Your task to perform on an android device: Show me popular videos on Youtube Image 0: 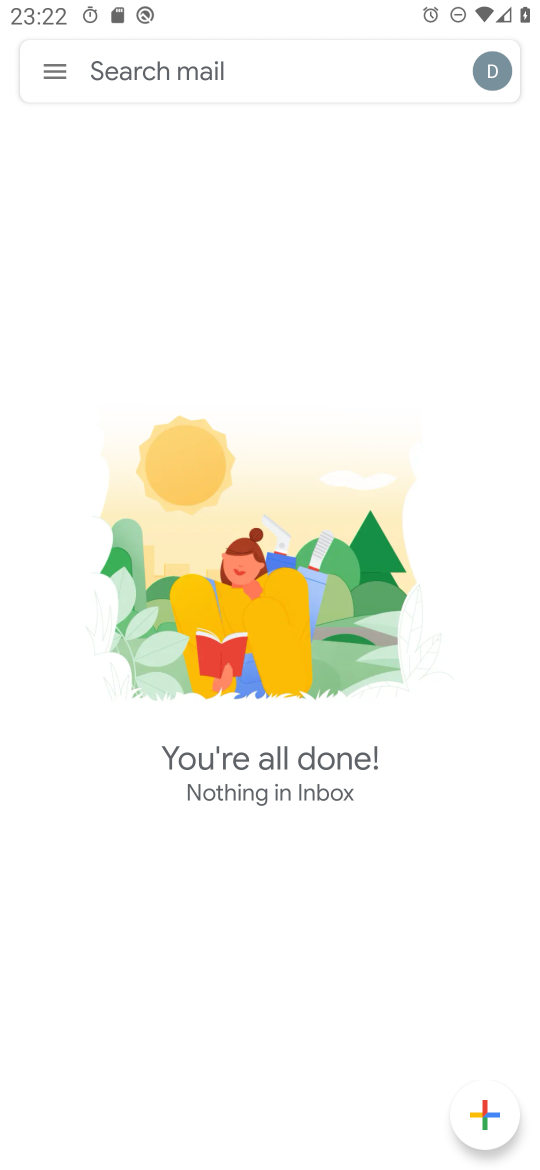
Step 0: press back button
Your task to perform on an android device: Show me popular videos on Youtube Image 1: 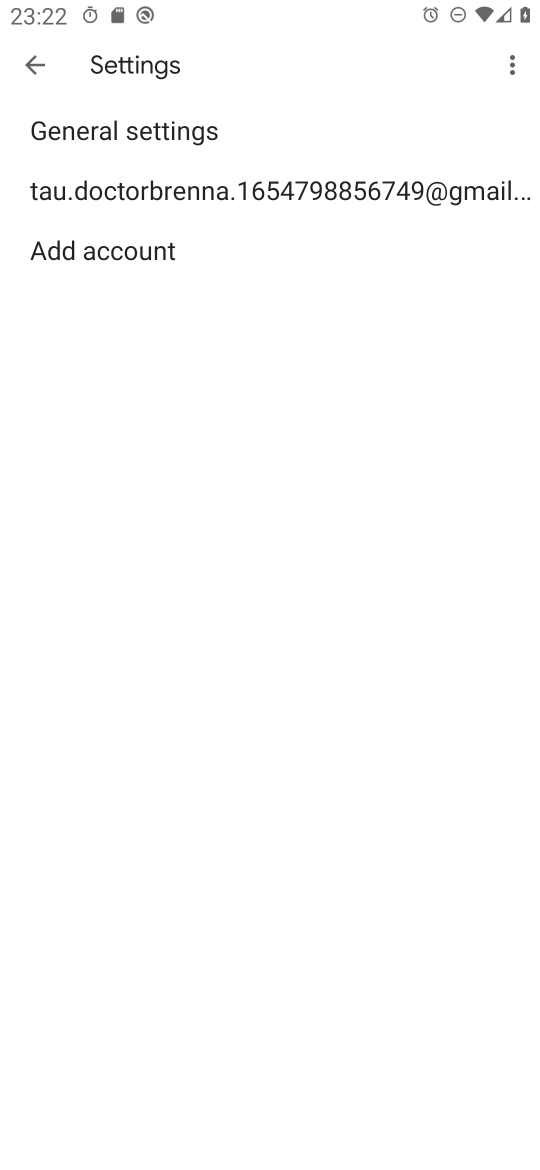
Step 1: press home button
Your task to perform on an android device: Show me popular videos on Youtube Image 2: 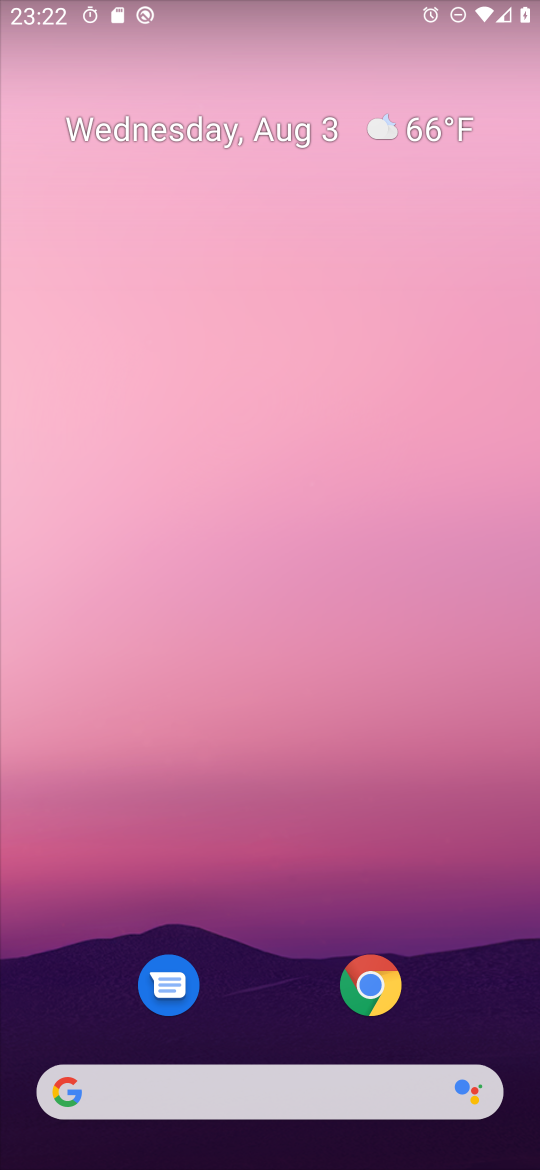
Step 2: drag from (247, 1024) to (287, 458)
Your task to perform on an android device: Show me popular videos on Youtube Image 3: 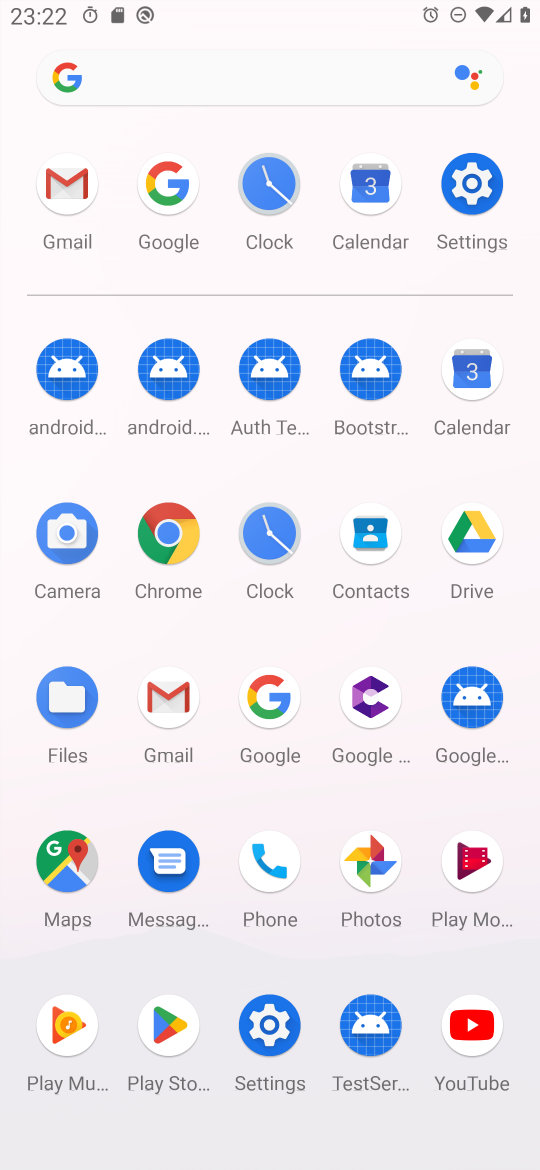
Step 3: click (478, 1010)
Your task to perform on an android device: Show me popular videos on Youtube Image 4: 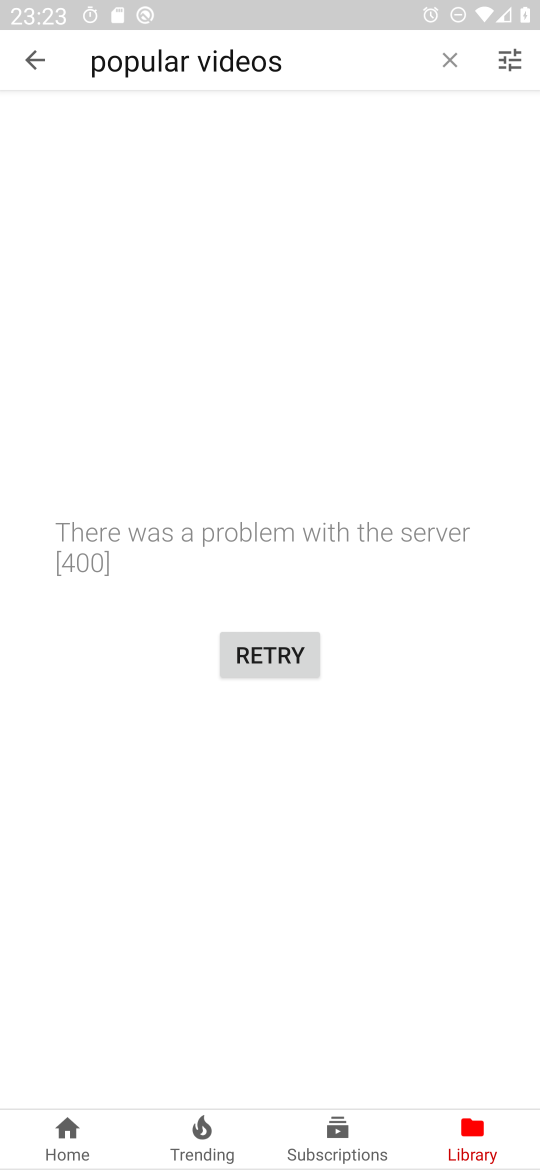
Step 4: task complete